Your task to perform on an android device: Go to accessibility settings Image 0: 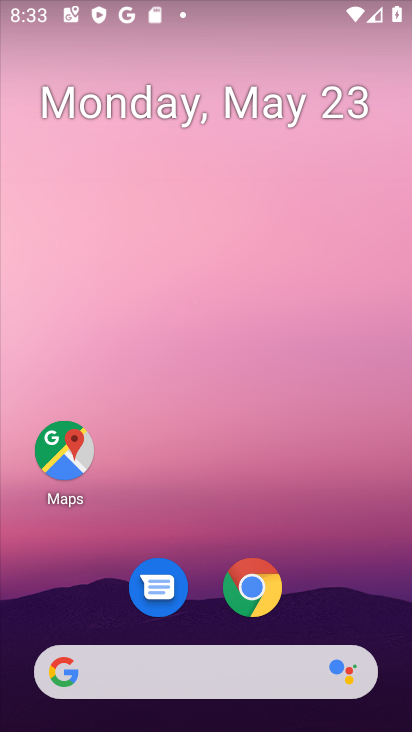
Step 0: drag from (195, 624) to (204, 114)
Your task to perform on an android device: Go to accessibility settings Image 1: 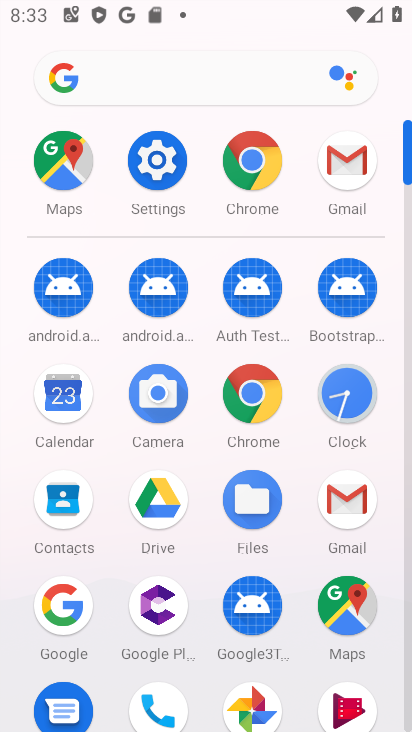
Step 1: click (169, 157)
Your task to perform on an android device: Go to accessibility settings Image 2: 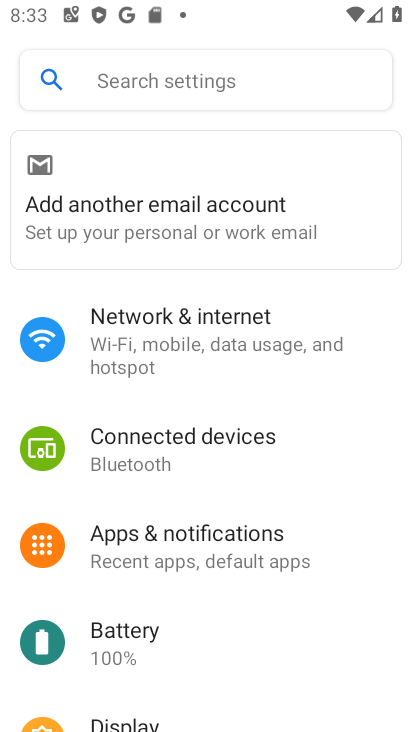
Step 2: drag from (150, 631) to (201, 117)
Your task to perform on an android device: Go to accessibility settings Image 3: 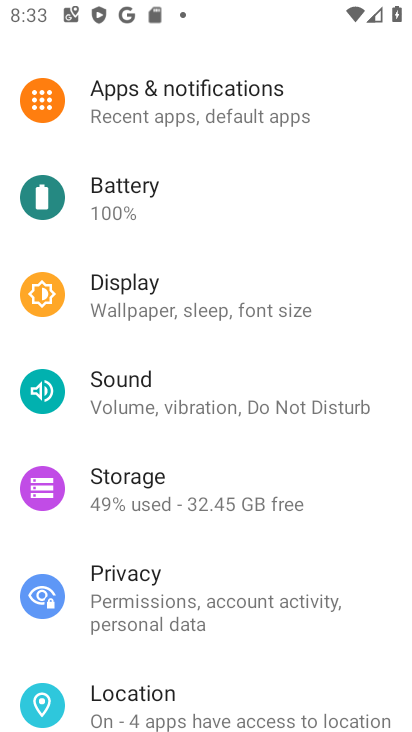
Step 3: drag from (145, 631) to (211, 70)
Your task to perform on an android device: Go to accessibility settings Image 4: 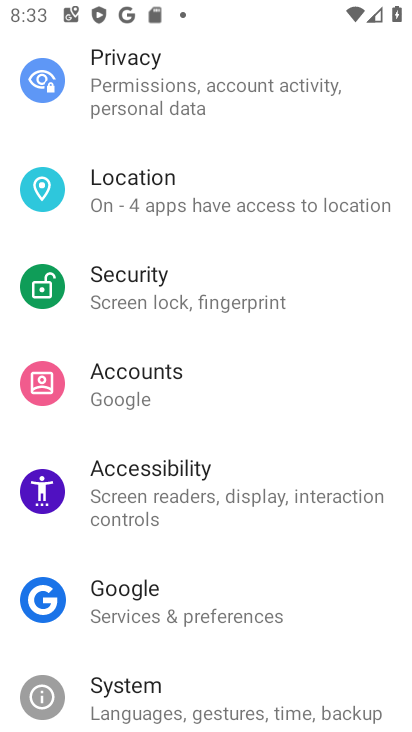
Step 4: click (180, 476)
Your task to perform on an android device: Go to accessibility settings Image 5: 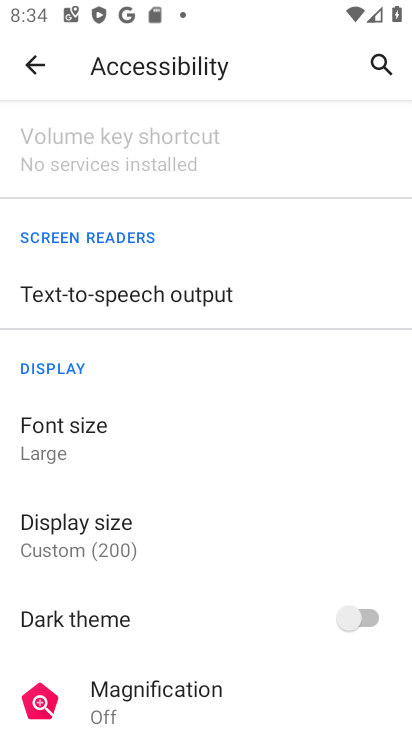
Step 5: task complete